Your task to perform on an android device: turn on sleep mode Image 0: 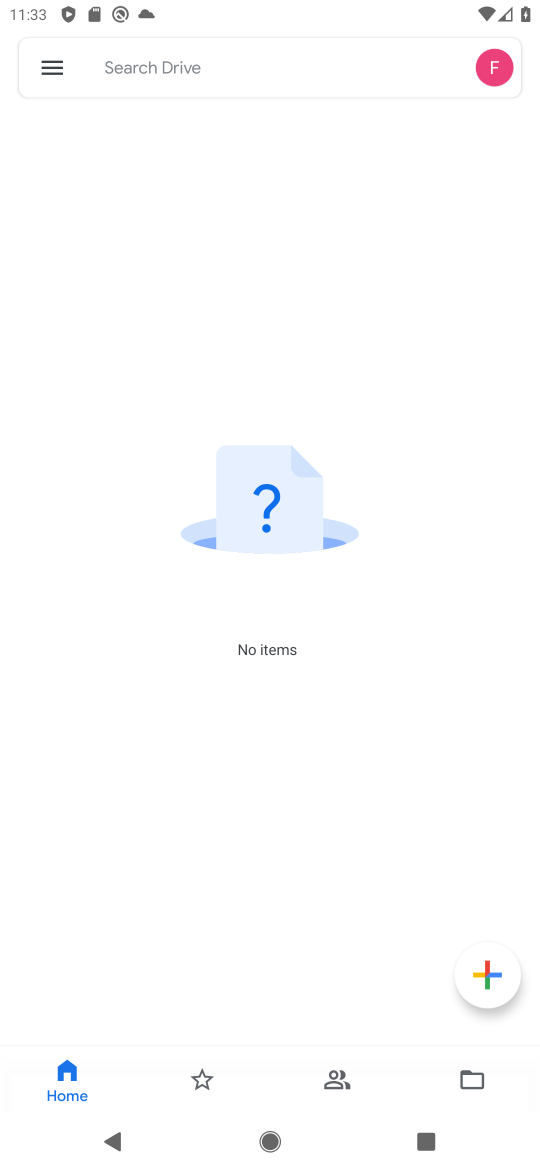
Step 0: press home button
Your task to perform on an android device: turn on sleep mode Image 1: 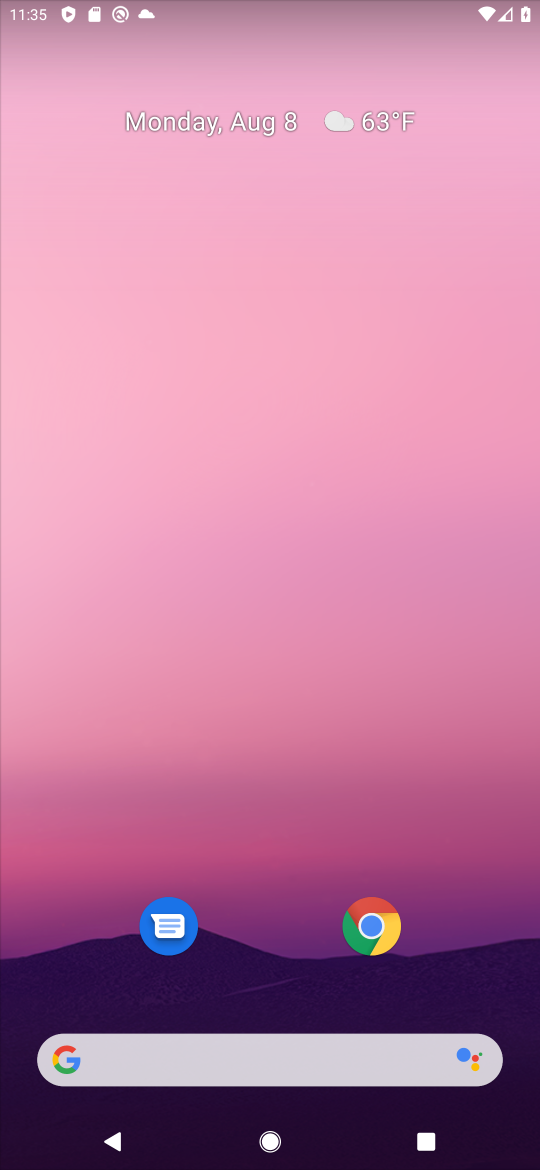
Step 1: drag from (161, 740) to (395, 305)
Your task to perform on an android device: turn on sleep mode Image 2: 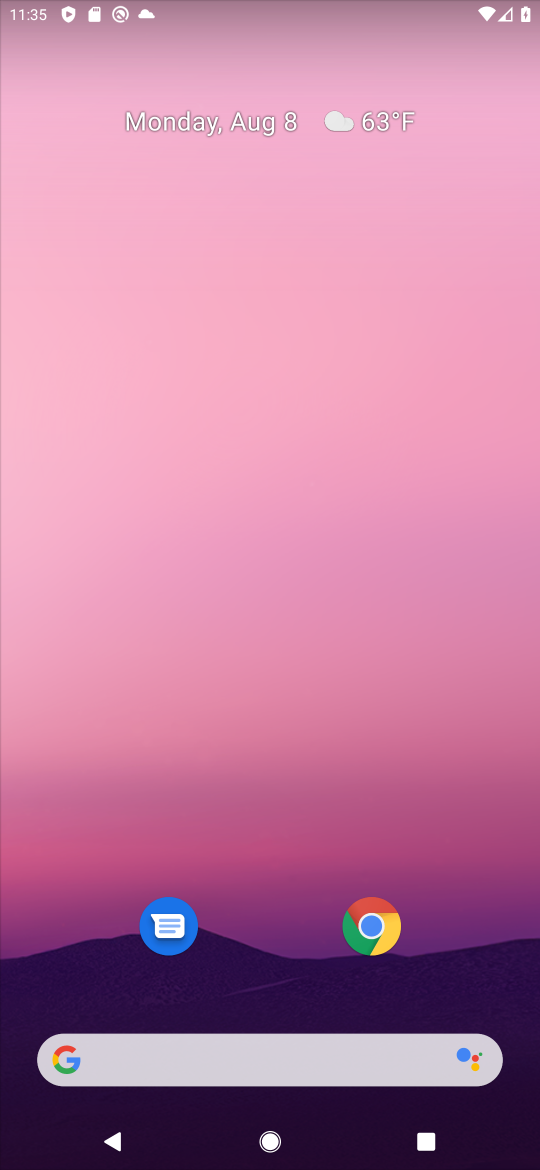
Step 2: drag from (75, 820) to (295, 109)
Your task to perform on an android device: turn on sleep mode Image 3: 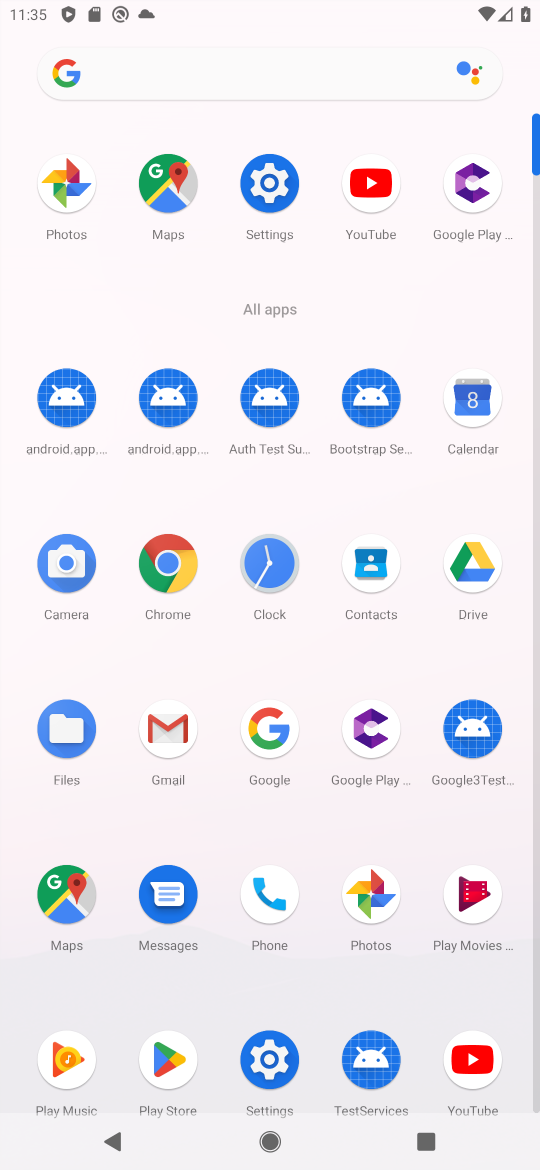
Step 3: click (262, 198)
Your task to perform on an android device: turn on sleep mode Image 4: 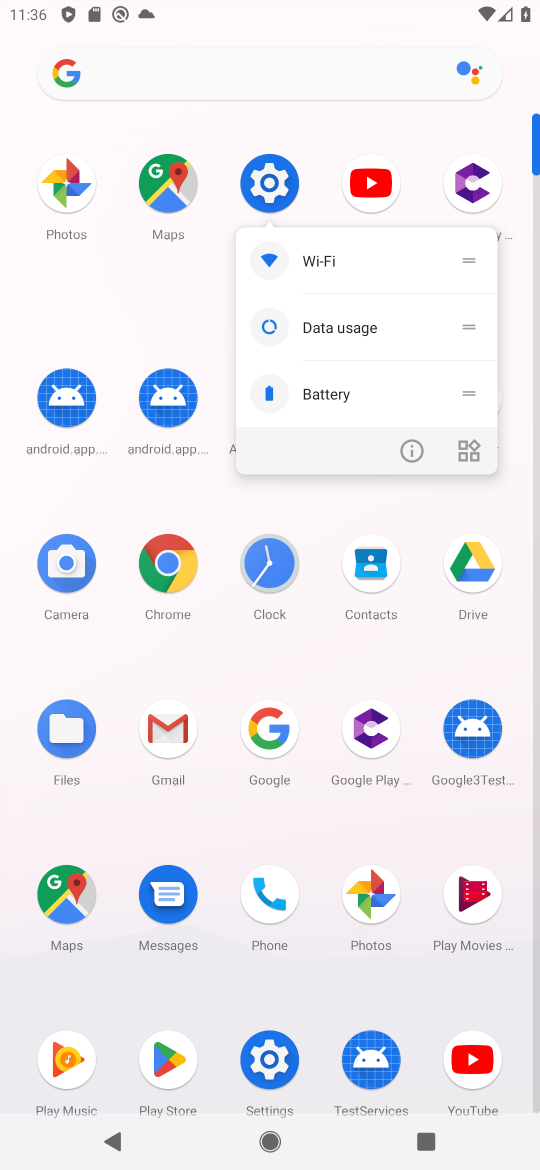
Step 4: click (270, 178)
Your task to perform on an android device: turn on sleep mode Image 5: 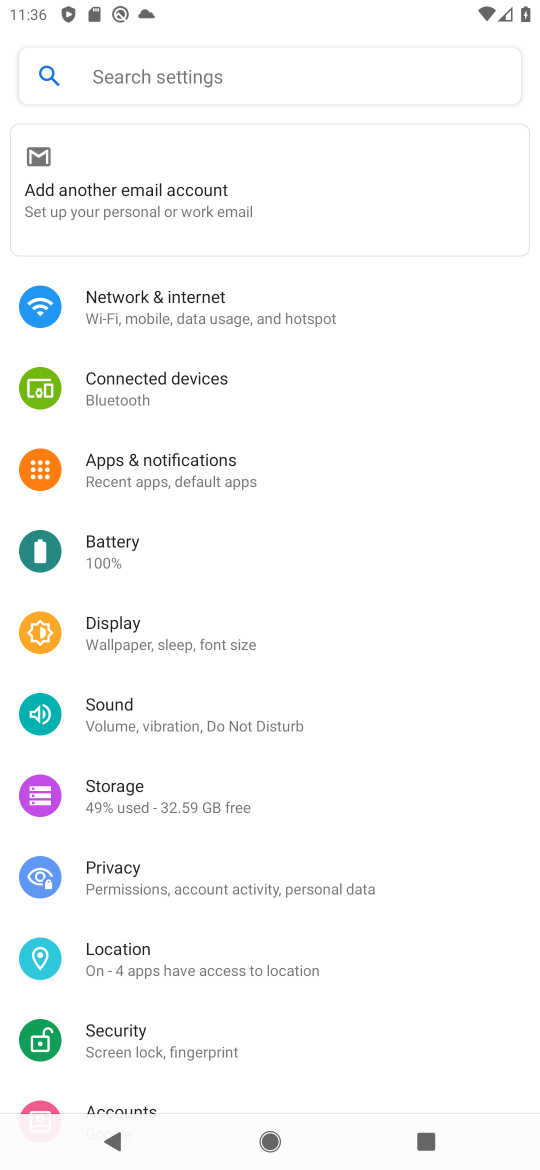
Step 5: click (172, 642)
Your task to perform on an android device: turn on sleep mode Image 6: 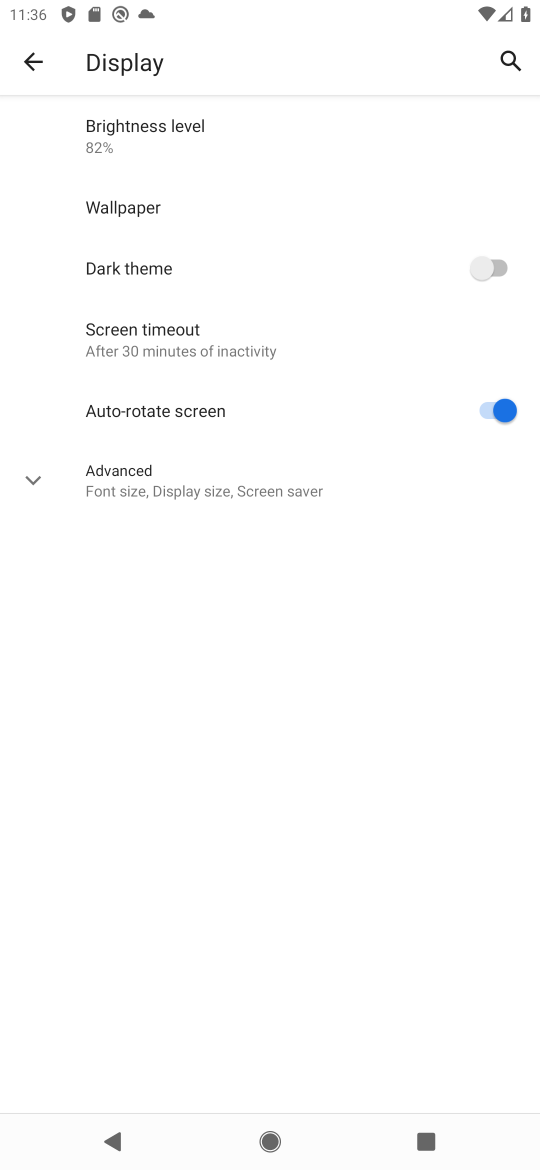
Step 6: task complete